Your task to perform on an android device: turn on notifications settings in the gmail app Image 0: 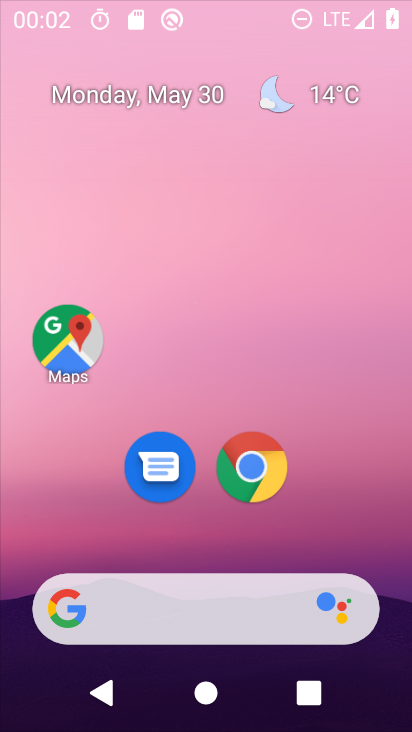
Step 0: drag from (193, 545) to (201, 187)
Your task to perform on an android device: turn on notifications settings in the gmail app Image 1: 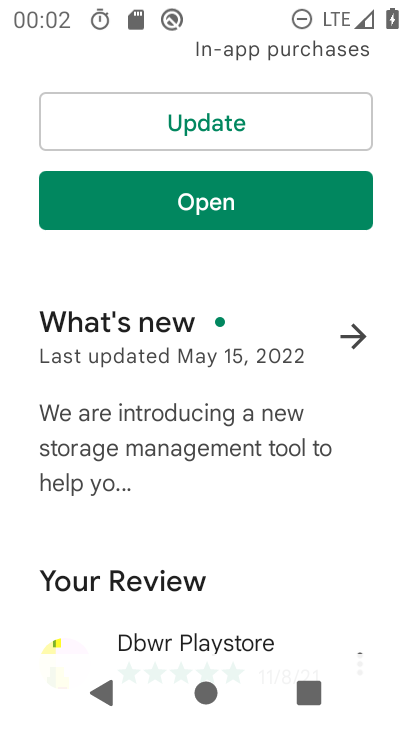
Step 1: press home button
Your task to perform on an android device: turn on notifications settings in the gmail app Image 2: 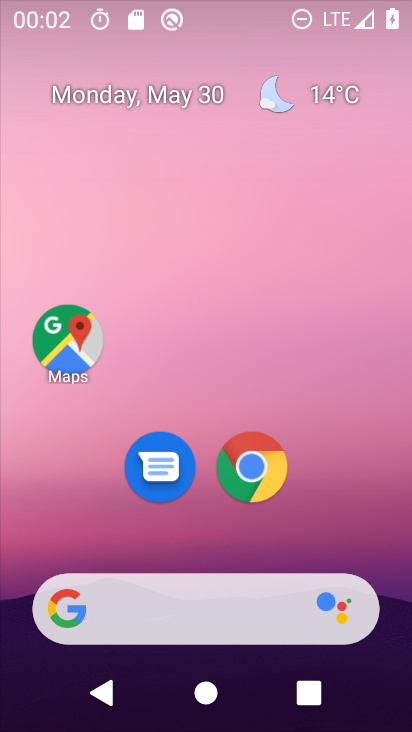
Step 2: drag from (184, 537) to (186, 159)
Your task to perform on an android device: turn on notifications settings in the gmail app Image 3: 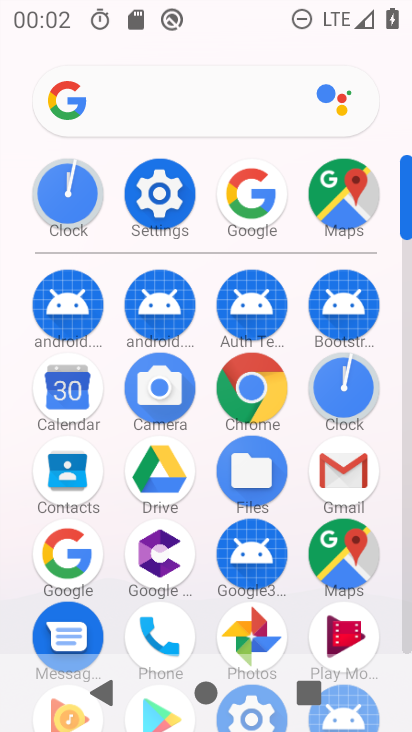
Step 3: click (336, 478)
Your task to perform on an android device: turn on notifications settings in the gmail app Image 4: 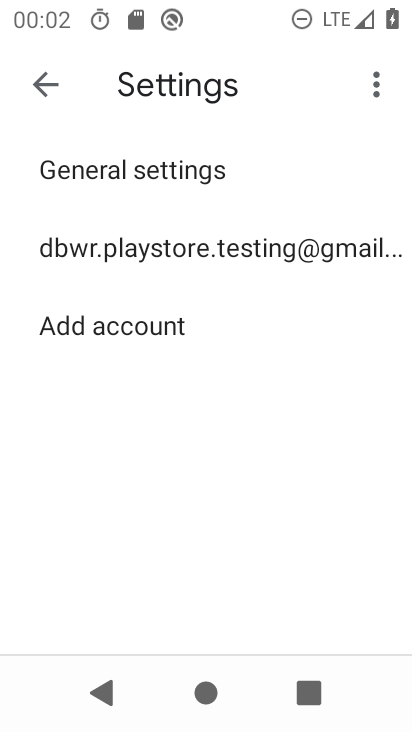
Step 4: click (47, 82)
Your task to perform on an android device: turn on notifications settings in the gmail app Image 5: 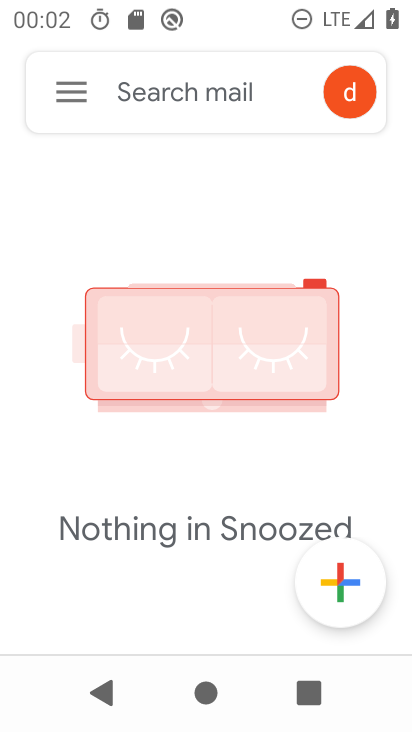
Step 5: click (60, 104)
Your task to perform on an android device: turn on notifications settings in the gmail app Image 6: 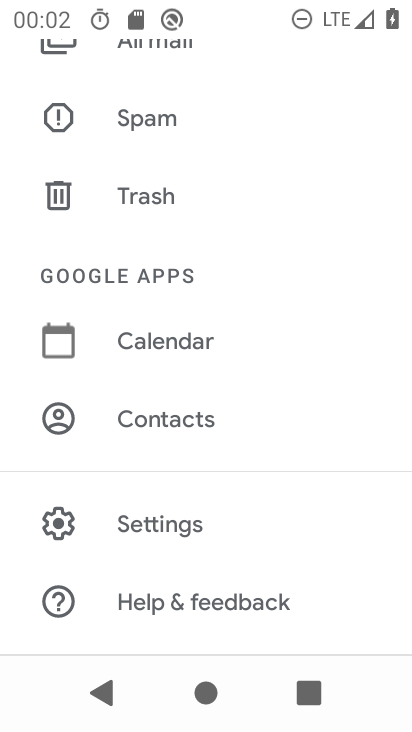
Step 6: click (161, 510)
Your task to perform on an android device: turn on notifications settings in the gmail app Image 7: 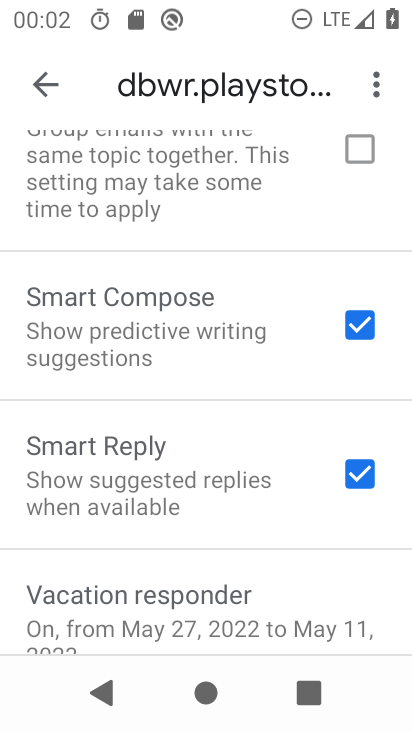
Step 7: drag from (152, 561) to (170, 181)
Your task to perform on an android device: turn on notifications settings in the gmail app Image 8: 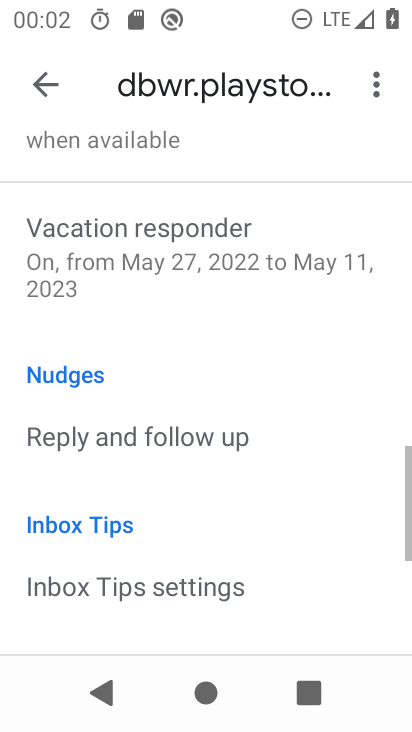
Step 8: drag from (147, 503) to (173, 169)
Your task to perform on an android device: turn on notifications settings in the gmail app Image 9: 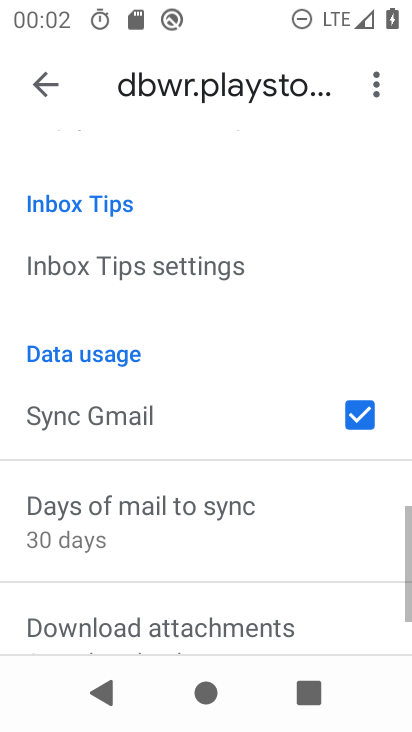
Step 9: drag from (156, 434) to (170, 547)
Your task to perform on an android device: turn on notifications settings in the gmail app Image 10: 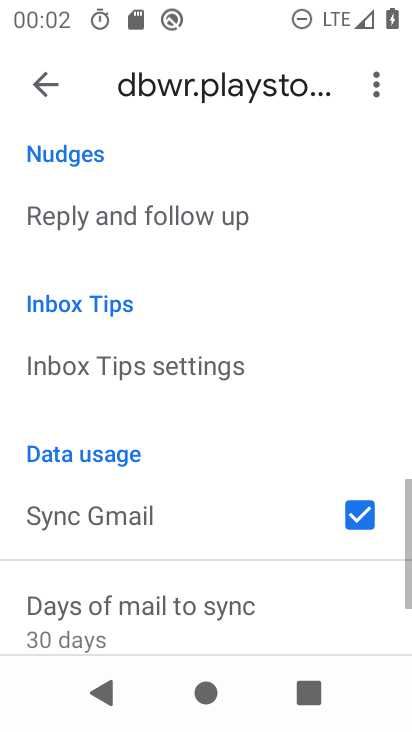
Step 10: drag from (164, 326) to (170, 531)
Your task to perform on an android device: turn on notifications settings in the gmail app Image 11: 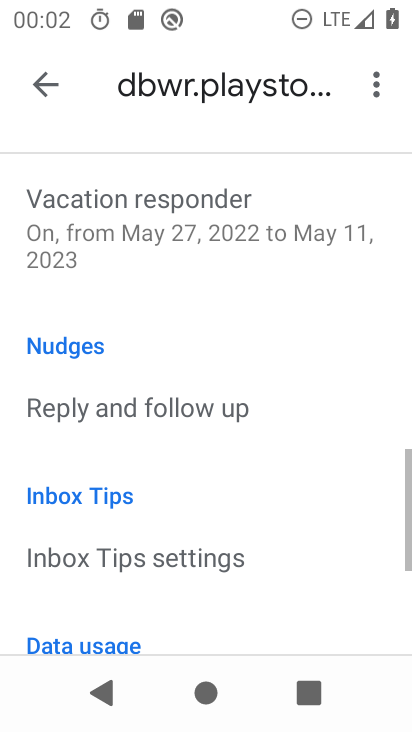
Step 11: drag from (174, 173) to (185, 519)
Your task to perform on an android device: turn on notifications settings in the gmail app Image 12: 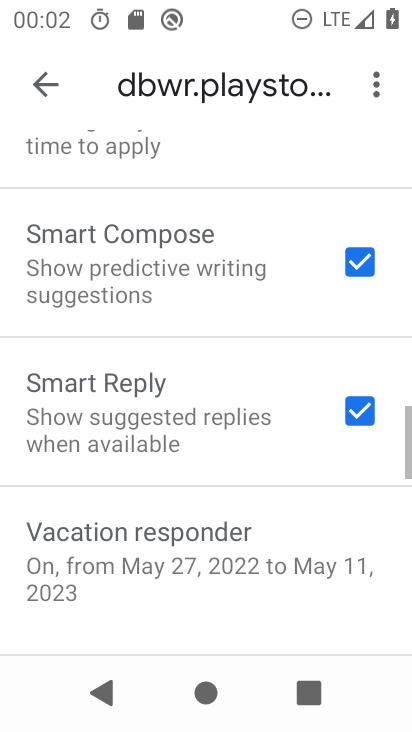
Step 12: drag from (165, 234) to (165, 534)
Your task to perform on an android device: turn on notifications settings in the gmail app Image 13: 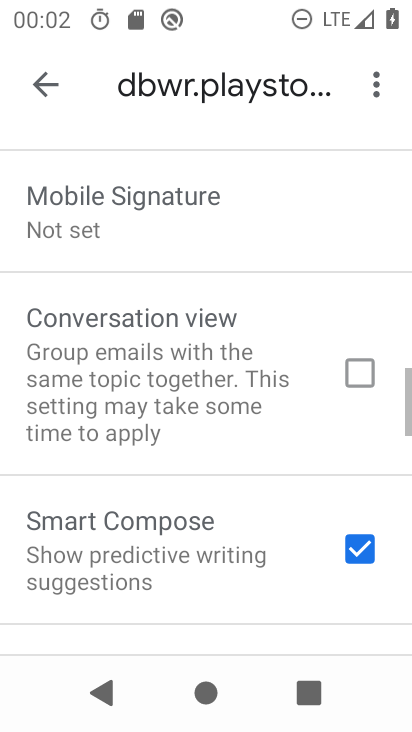
Step 13: drag from (170, 247) to (181, 536)
Your task to perform on an android device: turn on notifications settings in the gmail app Image 14: 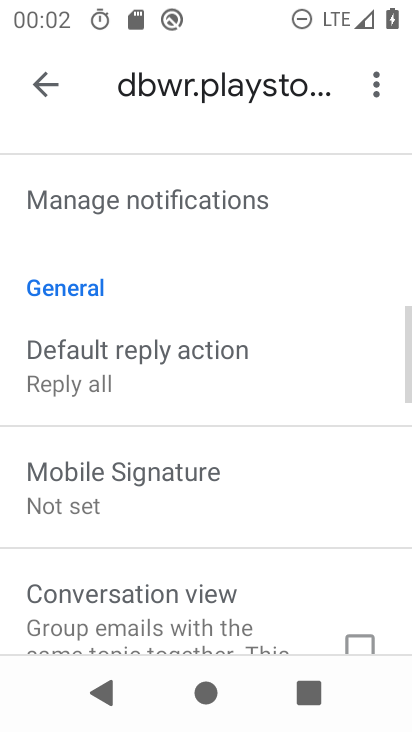
Step 14: drag from (149, 273) to (150, 446)
Your task to perform on an android device: turn on notifications settings in the gmail app Image 15: 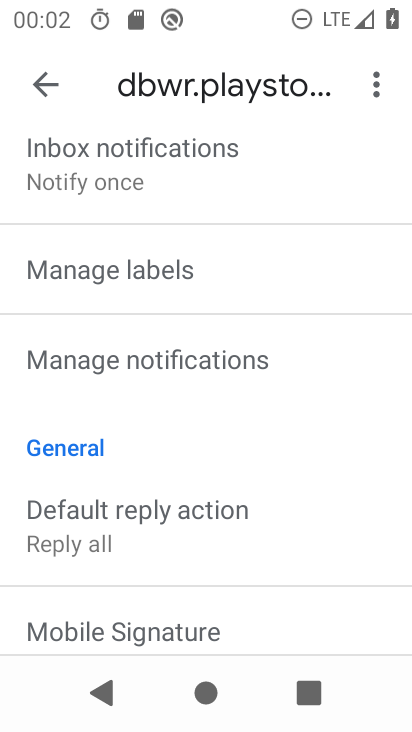
Step 15: click (184, 357)
Your task to perform on an android device: turn on notifications settings in the gmail app Image 16: 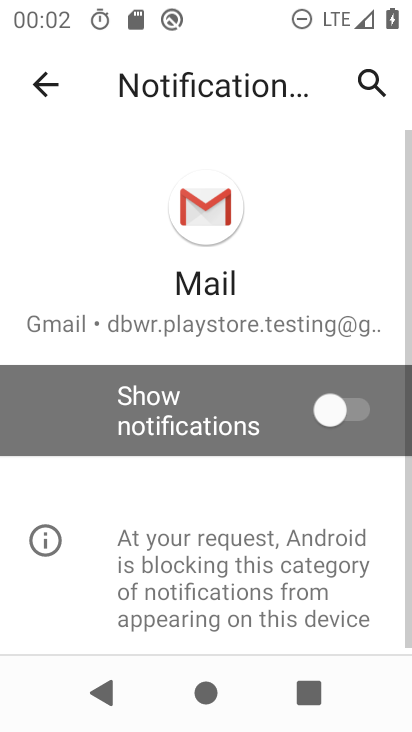
Step 16: click (350, 413)
Your task to perform on an android device: turn on notifications settings in the gmail app Image 17: 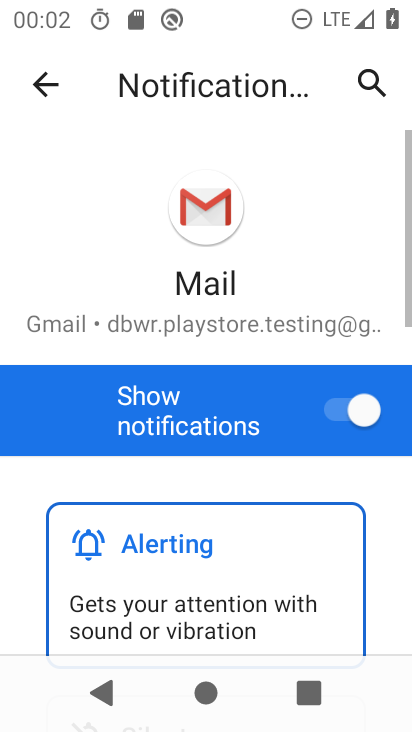
Step 17: task complete